Your task to perform on an android device: Go to Amazon Image 0: 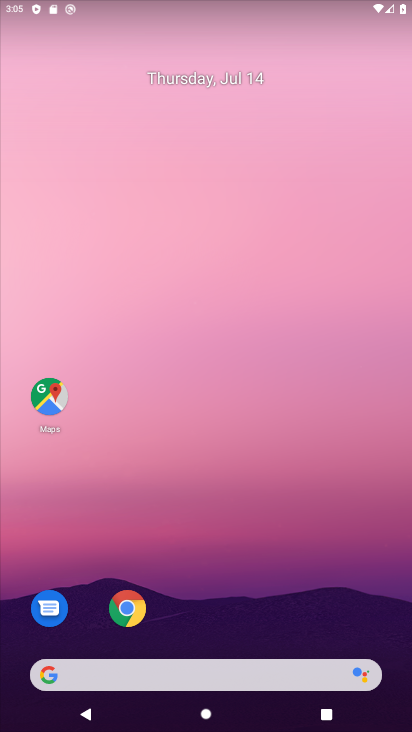
Step 0: click (132, 618)
Your task to perform on an android device: Go to Amazon Image 1: 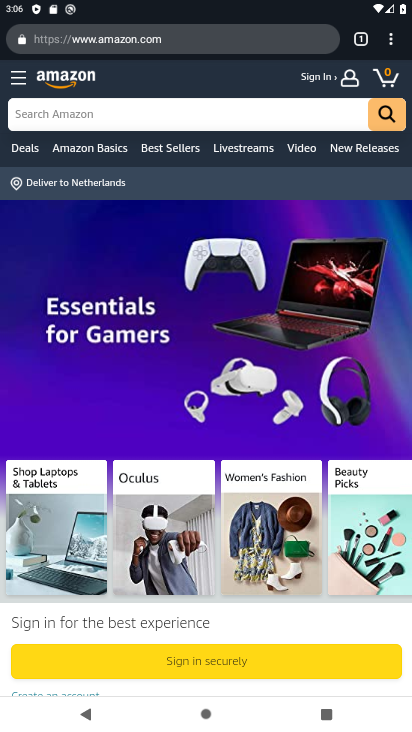
Step 1: task complete